Your task to perform on an android device: add a label to a message in the gmail app Image 0: 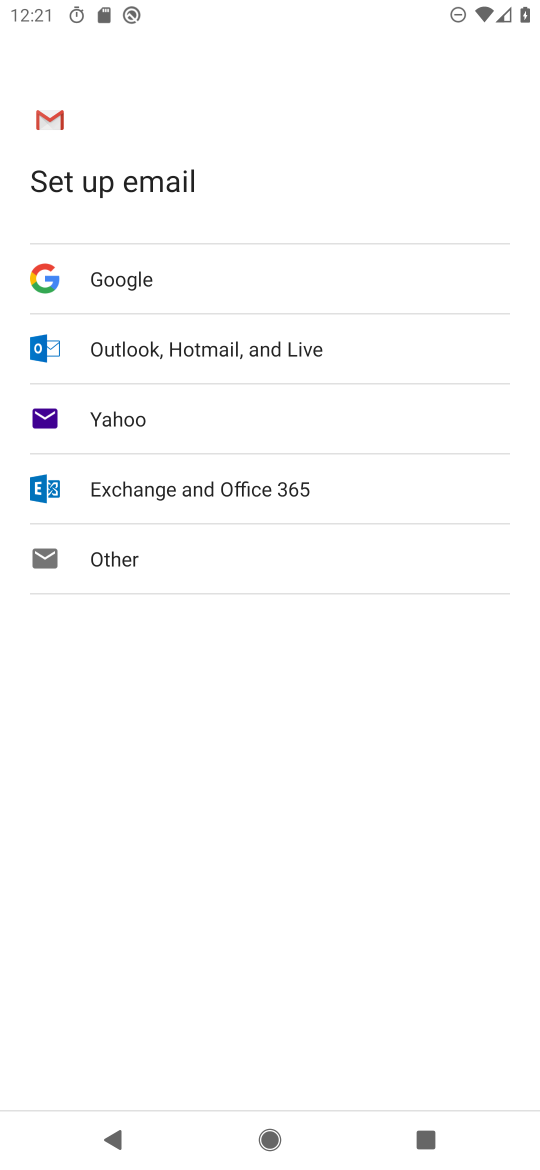
Step 0: press home button
Your task to perform on an android device: add a label to a message in the gmail app Image 1: 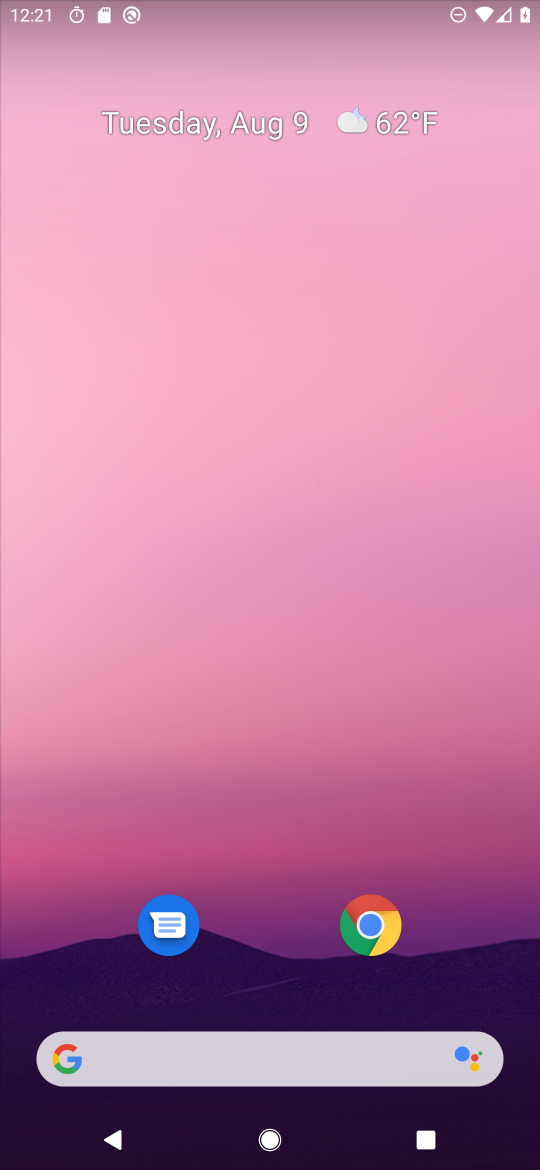
Step 1: drag from (265, 774) to (307, 205)
Your task to perform on an android device: add a label to a message in the gmail app Image 2: 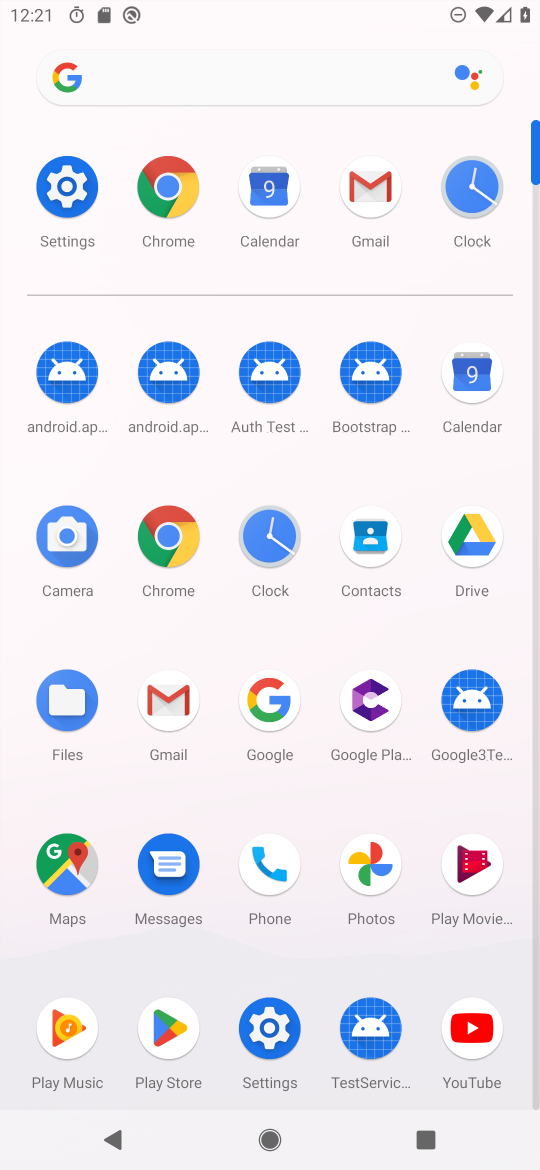
Step 2: click (174, 705)
Your task to perform on an android device: add a label to a message in the gmail app Image 3: 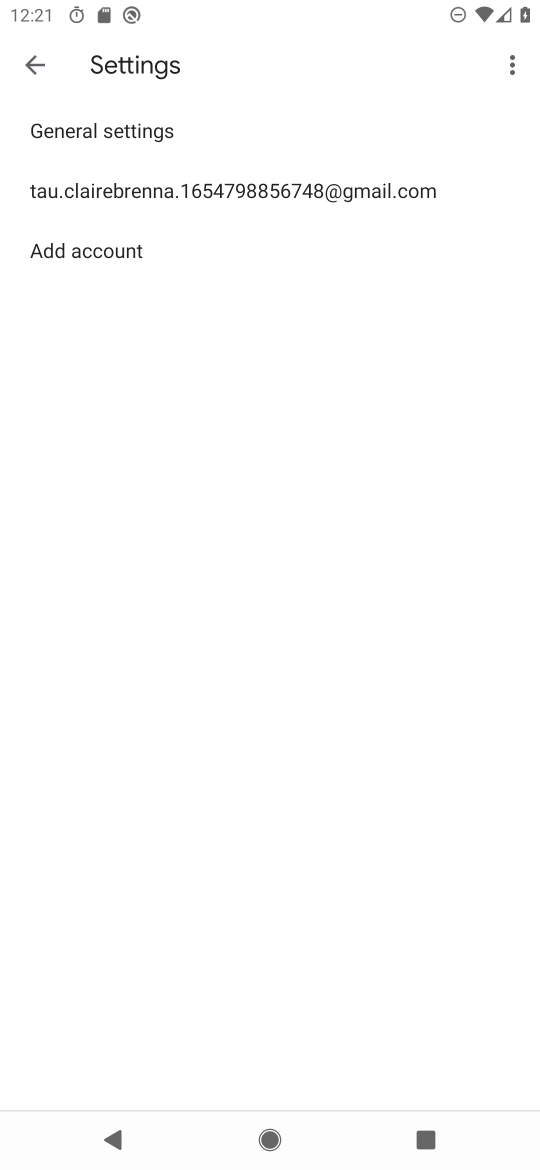
Step 3: click (45, 58)
Your task to perform on an android device: add a label to a message in the gmail app Image 4: 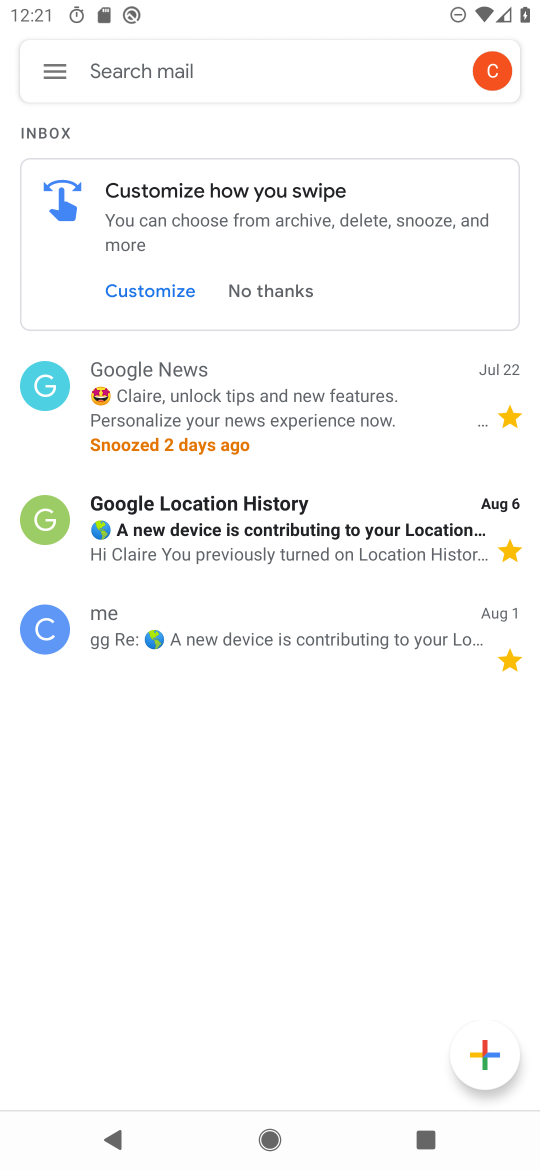
Step 4: click (58, 77)
Your task to perform on an android device: add a label to a message in the gmail app Image 5: 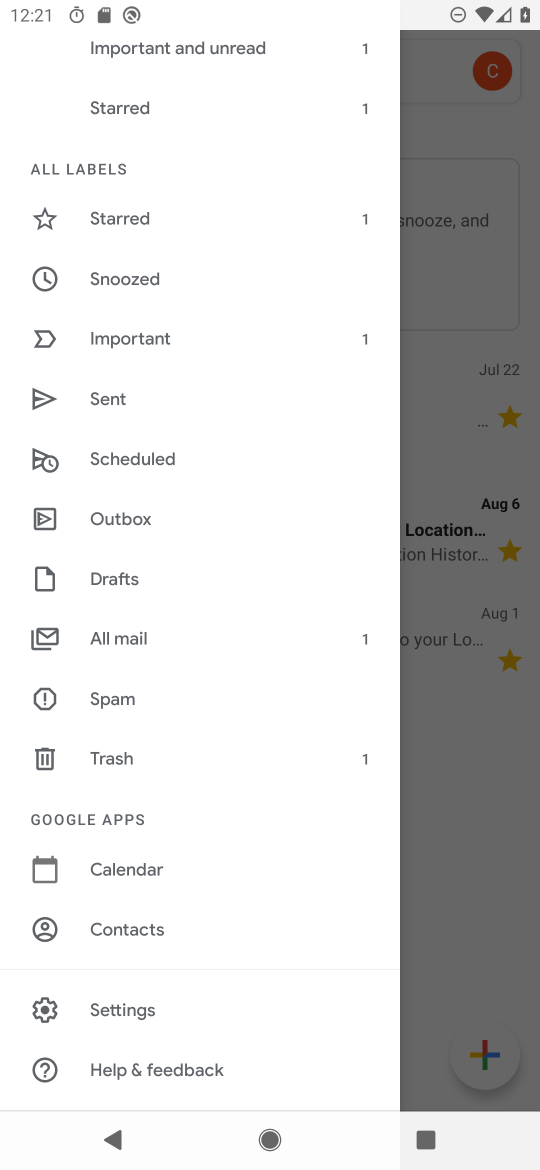
Step 5: click (109, 637)
Your task to perform on an android device: add a label to a message in the gmail app Image 6: 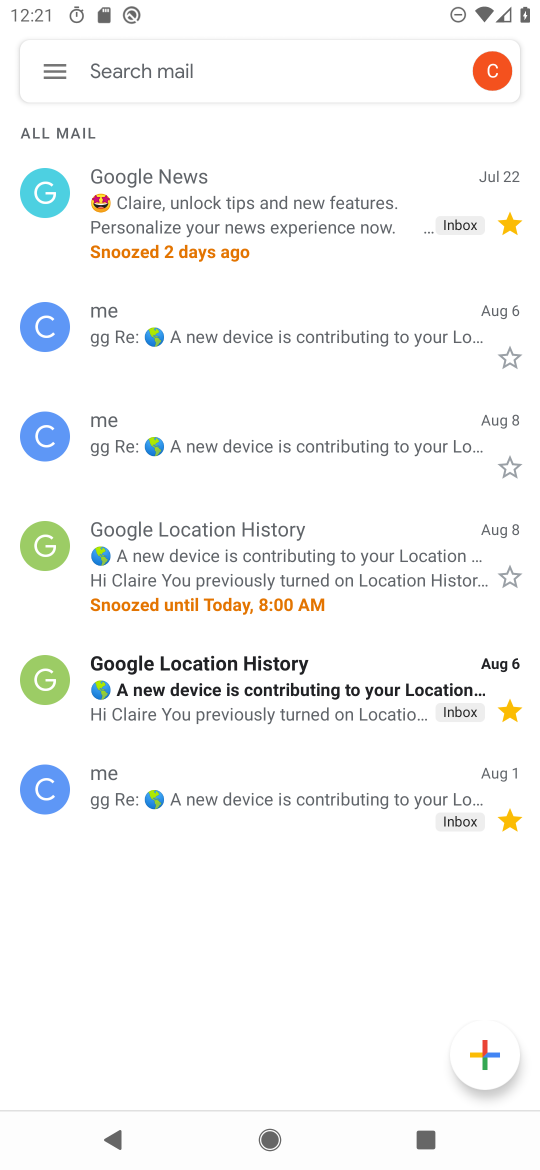
Step 6: click (350, 445)
Your task to perform on an android device: add a label to a message in the gmail app Image 7: 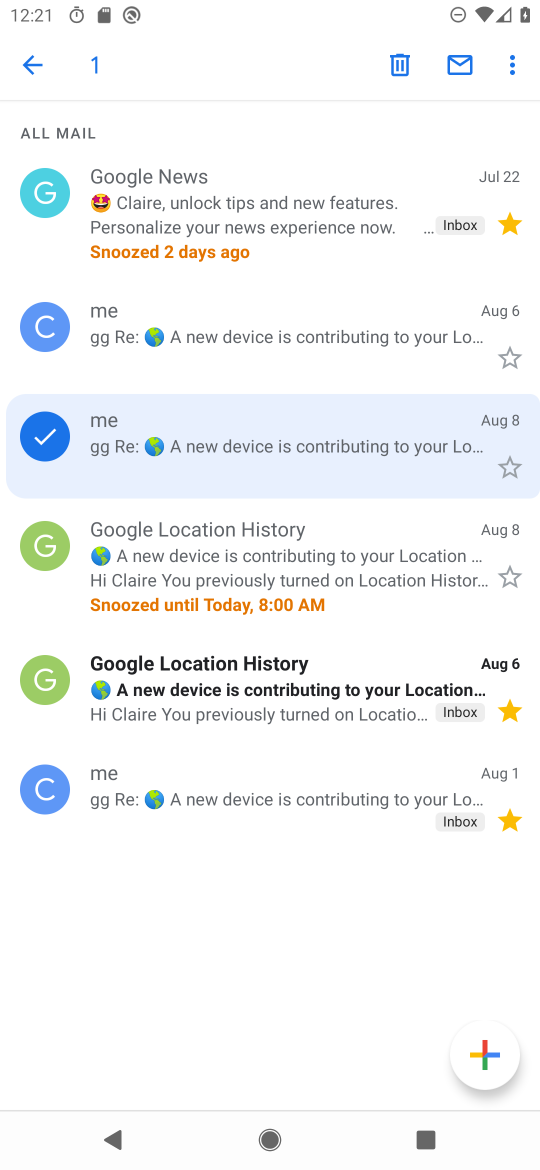
Step 7: click (518, 64)
Your task to perform on an android device: add a label to a message in the gmail app Image 8: 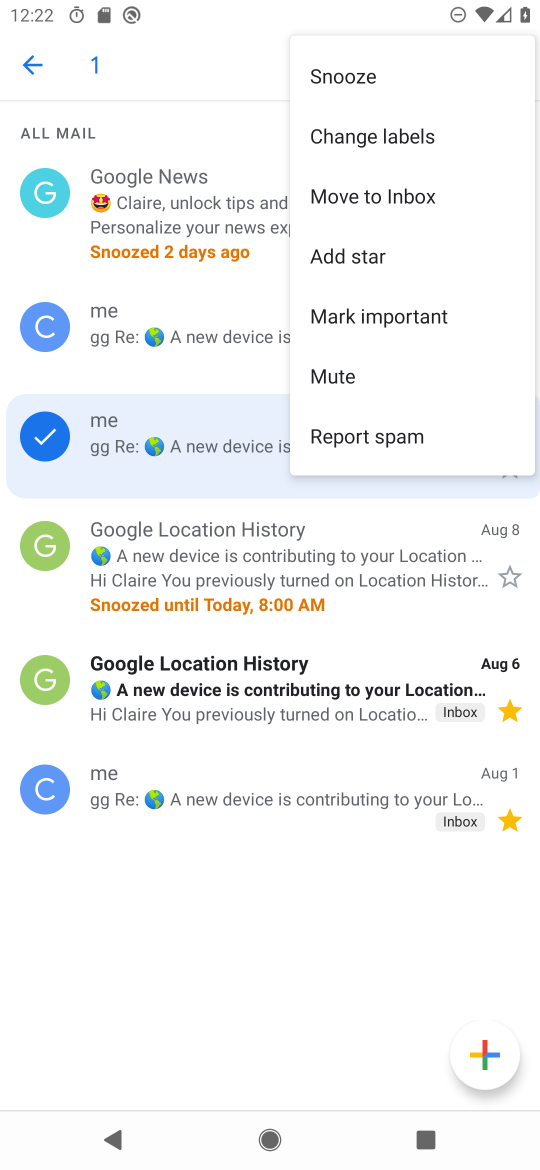
Step 8: task complete